Your task to perform on an android device: Open internet settings Image 0: 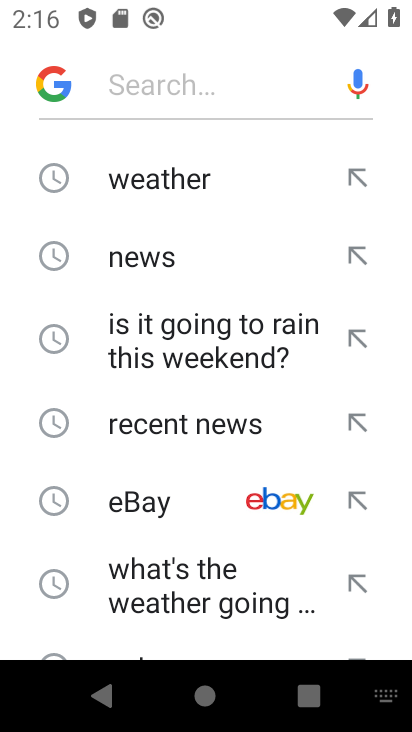
Step 0: press home button
Your task to perform on an android device: Open internet settings Image 1: 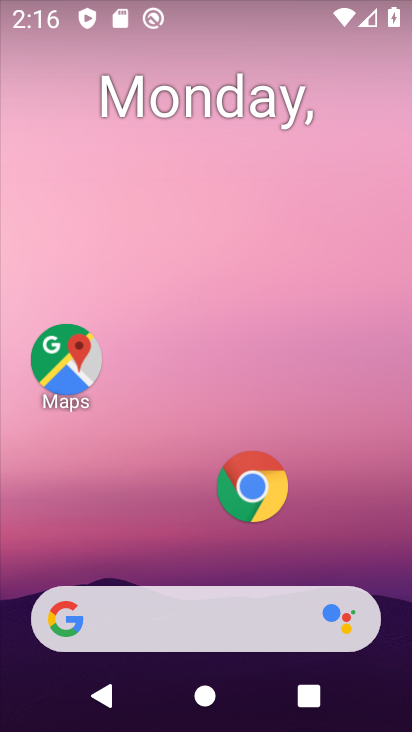
Step 1: drag from (168, 538) to (173, 82)
Your task to perform on an android device: Open internet settings Image 2: 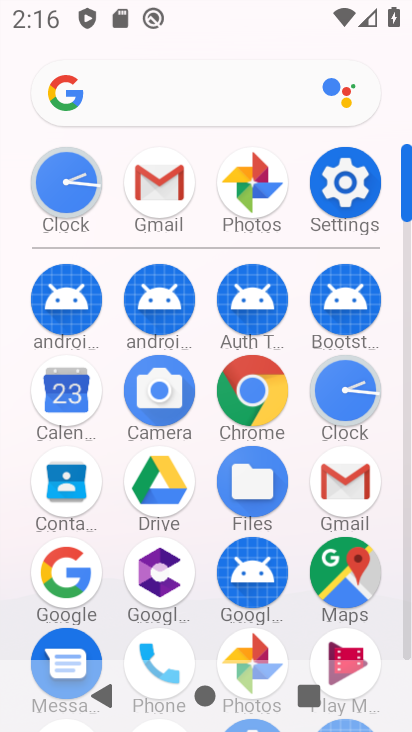
Step 2: click (346, 182)
Your task to perform on an android device: Open internet settings Image 3: 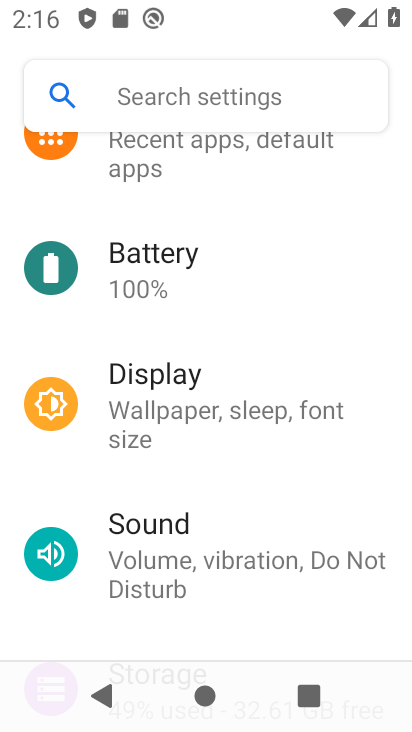
Step 3: drag from (198, 266) to (190, 590)
Your task to perform on an android device: Open internet settings Image 4: 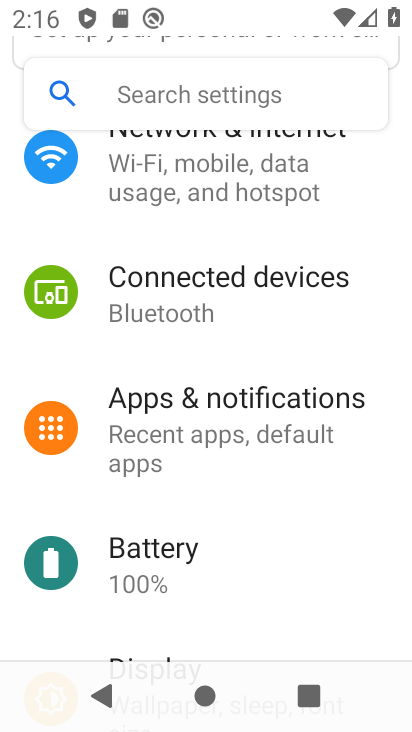
Step 4: drag from (196, 298) to (199, 554)
Your task to perform on an android device: Open internet settings Image 5: 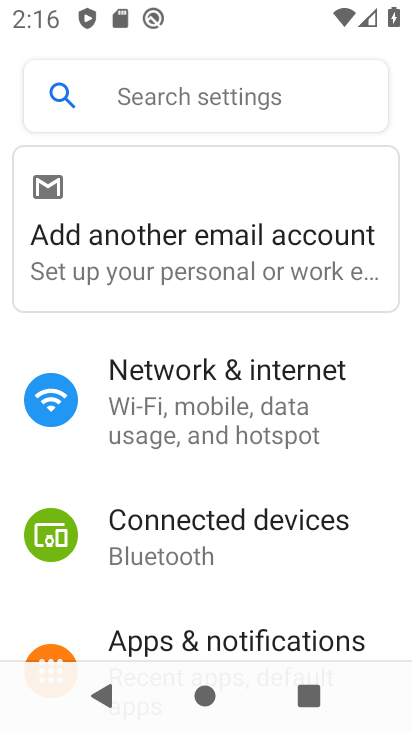
Step 5: click (167, 389)
Your task to perform on an android device: Open internet settings Image 6: 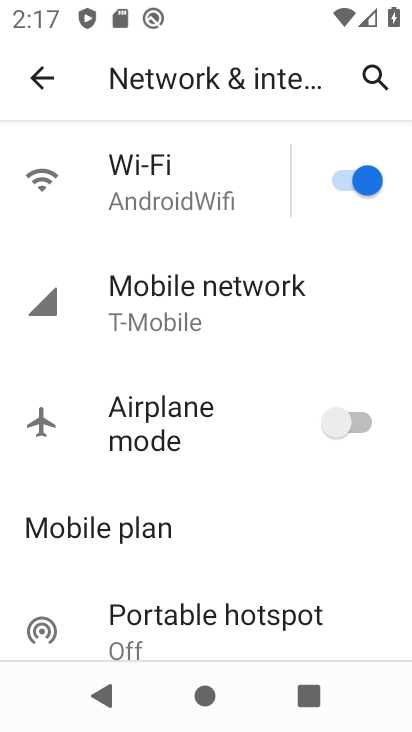
Step 6: click (143, 301)
Your task to perform on an android device: Open internet settings Image 7: 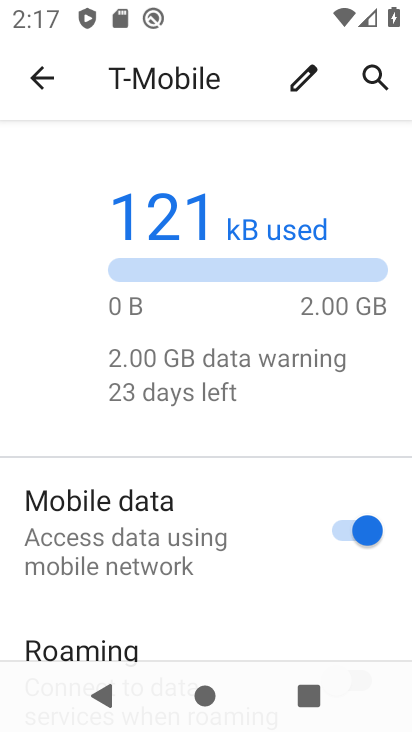
Step 7: task complete